Your task to perform on an android device: Turn on the flashlight Image 0: 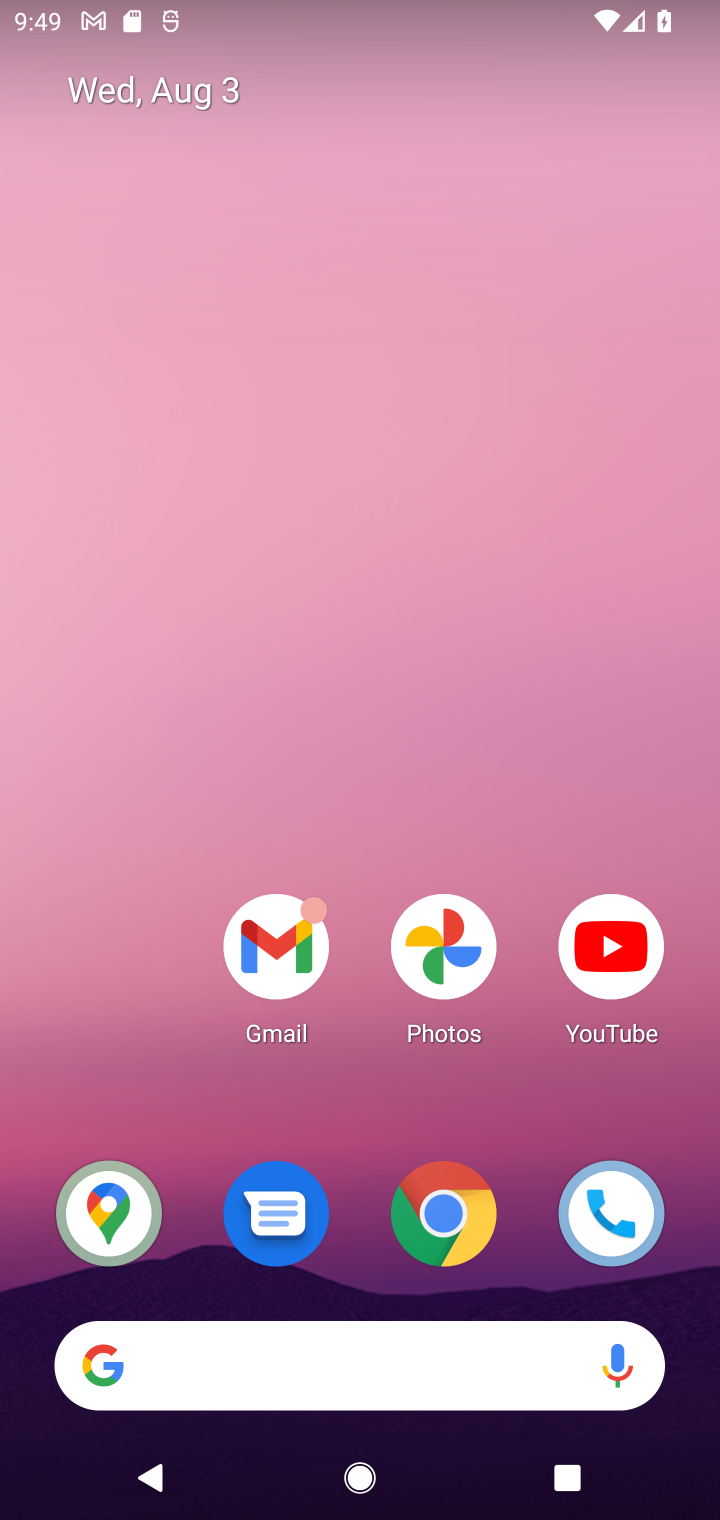
Step 0: drag from (384, 1337) to (355, 198)
Your task to perform on an android device: Turn on the flashlight Image 1: 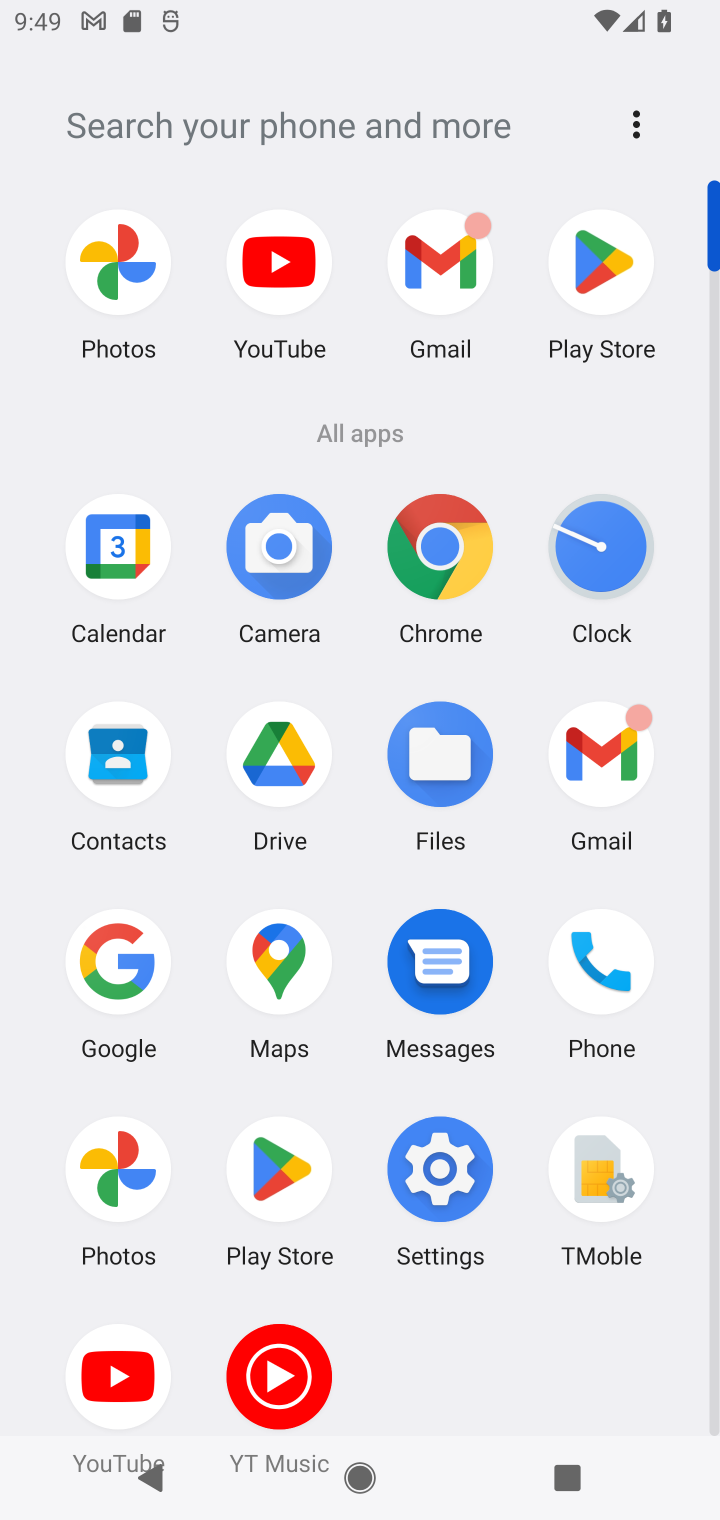
Step 1: click (403, 1162)
Your task to perform on an android device: Turn on the flashlight Image 2: 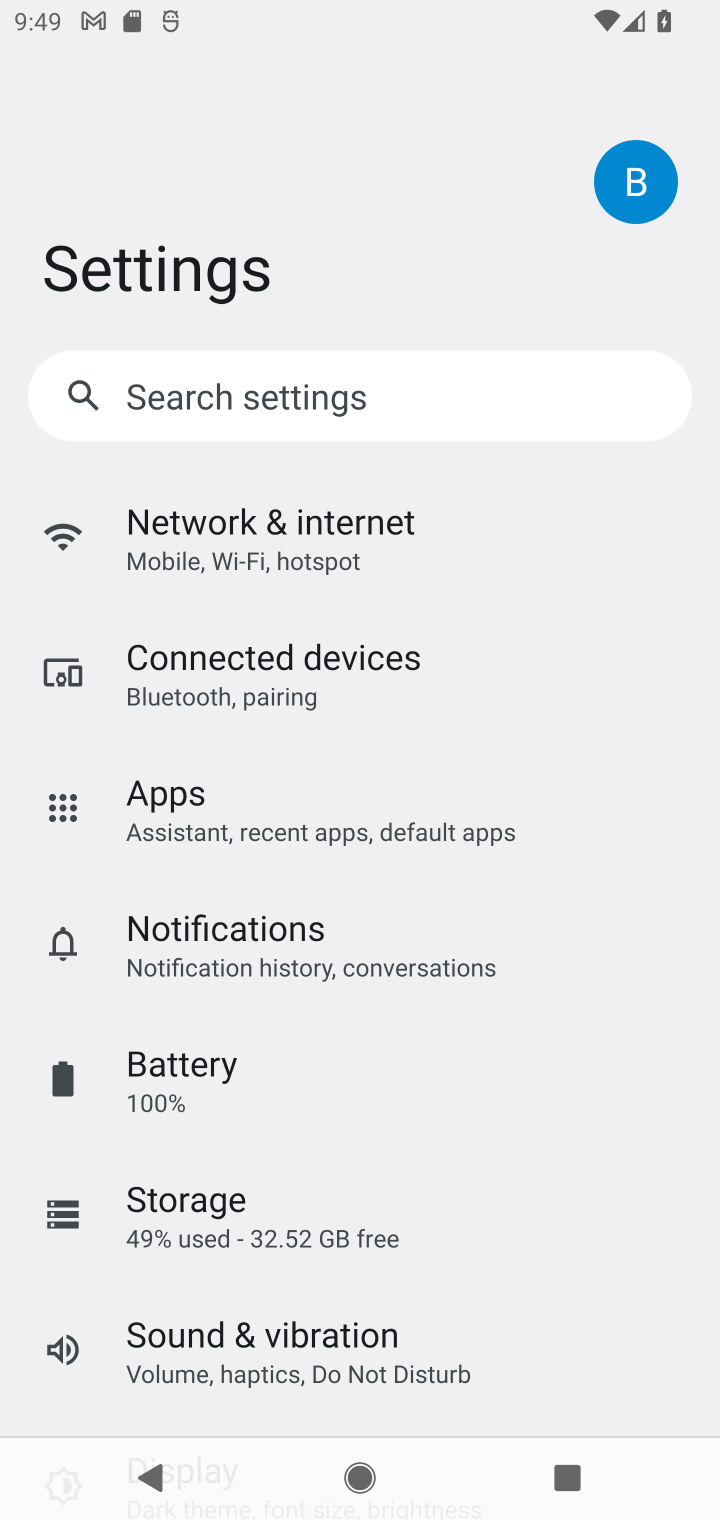
Step 2: task complete